Your task to perform on an android device: Open settings on Google Maps Image 0: 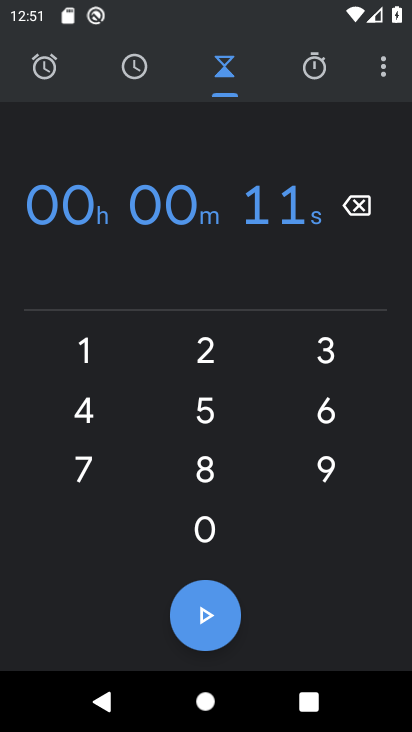
Step 0: press home button
Your task to perform on an android device: Open settings on Google Maps Image 1: 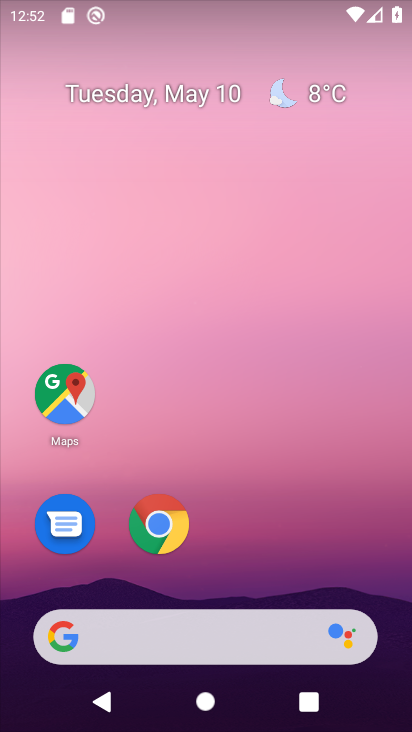
Step 1: click (63, 396)
Your task to perform on an android device: Open settings on Google Maps Image 2: 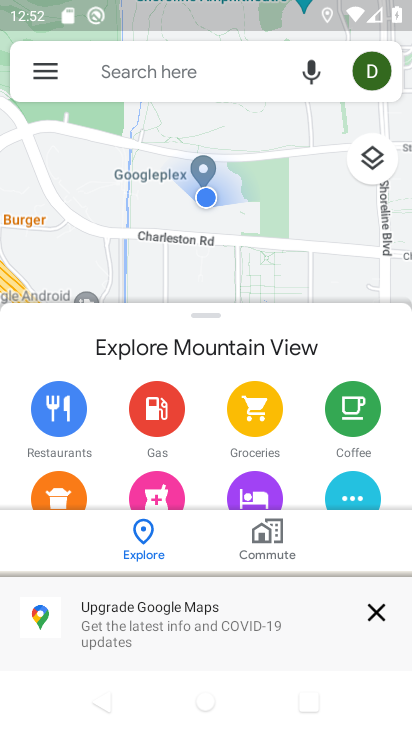
Step 2: click (42, 69)
Your task to perform on an android device: Open settings on Google Maps Image 3: 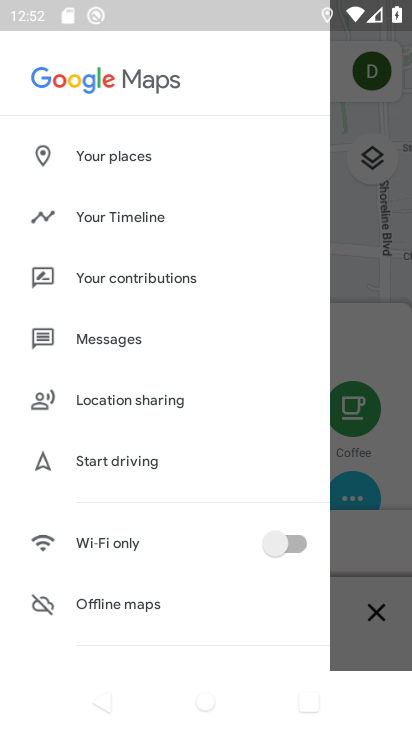
Step 3: drag from (136, 474) to (190, 39)
Your task to perform on an android device: Open settings on Google Maps Image 4: 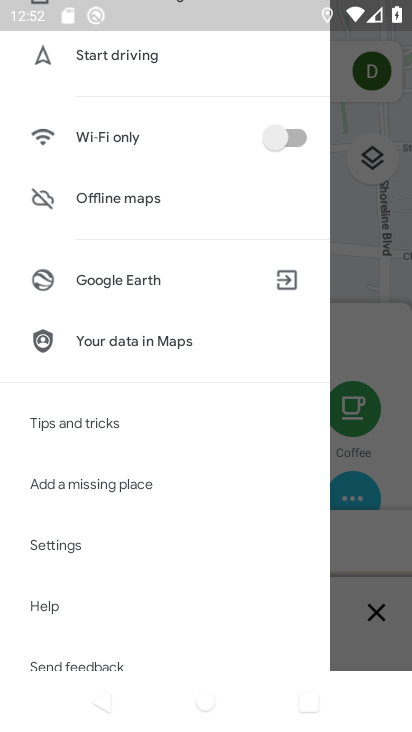
Step 4: click (97, 544)
Your task to perform on an android device: Open settings on Google Maps Image 5: 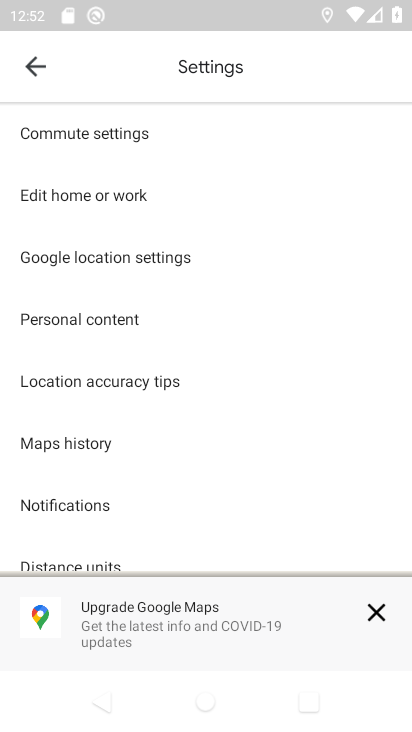
Step 5: task complete